Your task to perform on an android device: Search for seafood restaurants on Google Maps Image 0: 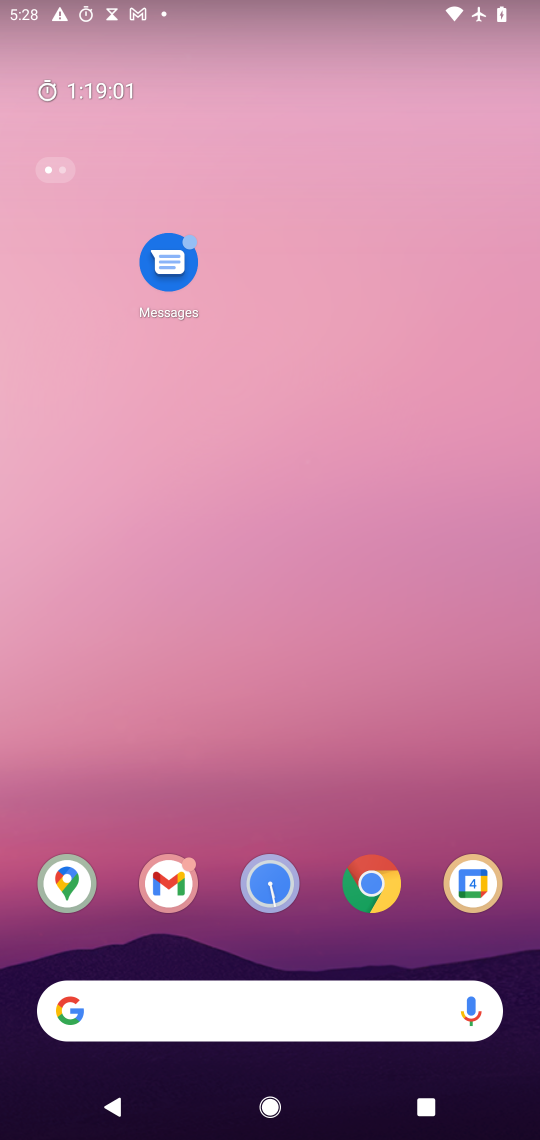
Step 0: drag from (318, 942) to (343, 44)
Your task to perform on an android device: Search for seafood restaurants on Google Maps Image 1: 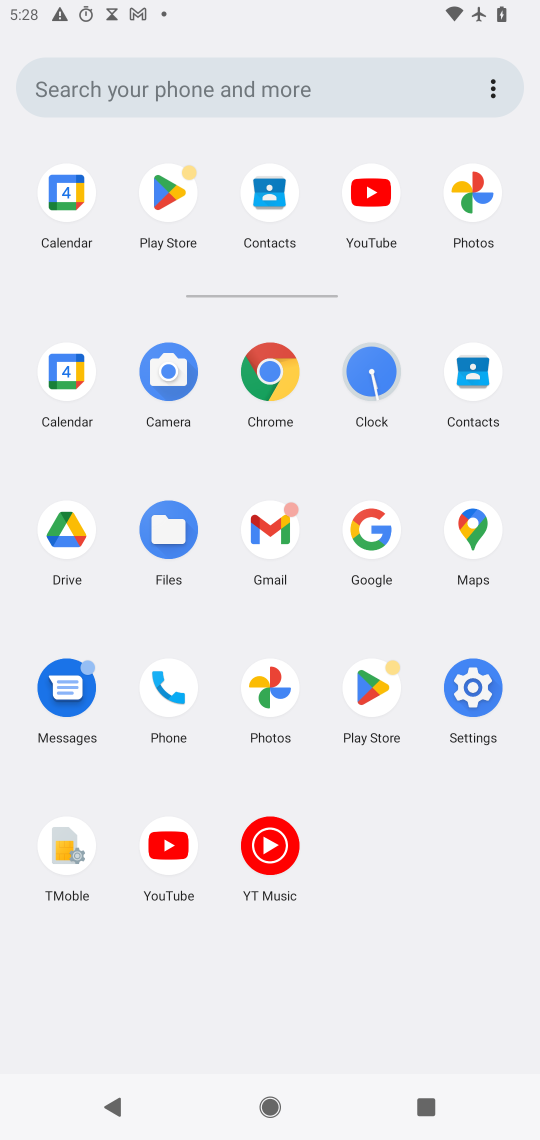
Step 1: click (478, 534)
Your task to perform on an android device: Search for seafood restaurants on Google Maps Image 2: 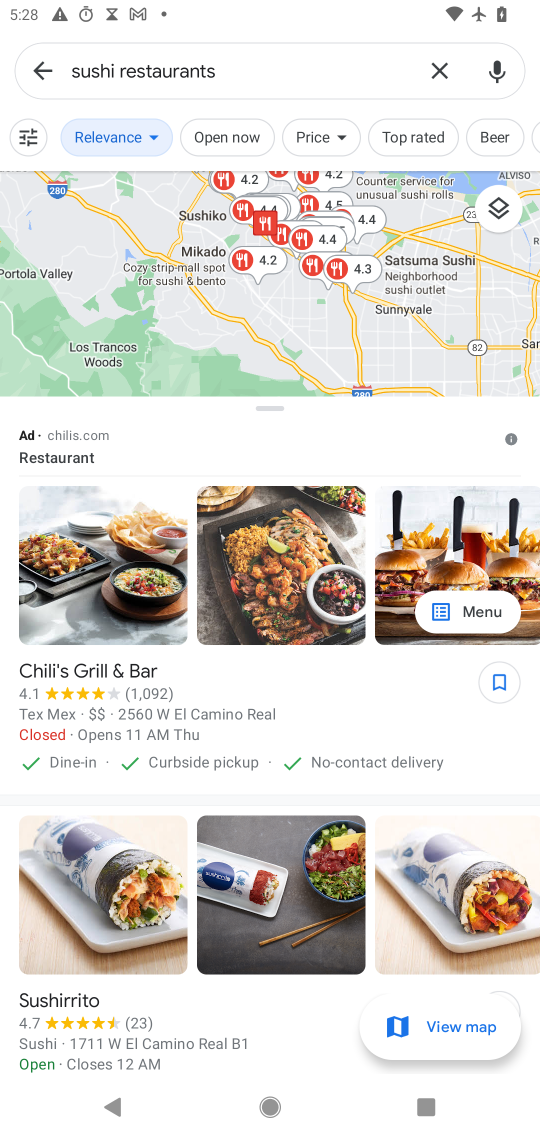
Step 2: click (434, 64)
Your task to perform on an android device: Search for seafood restaurants on Google Maps Image 3: 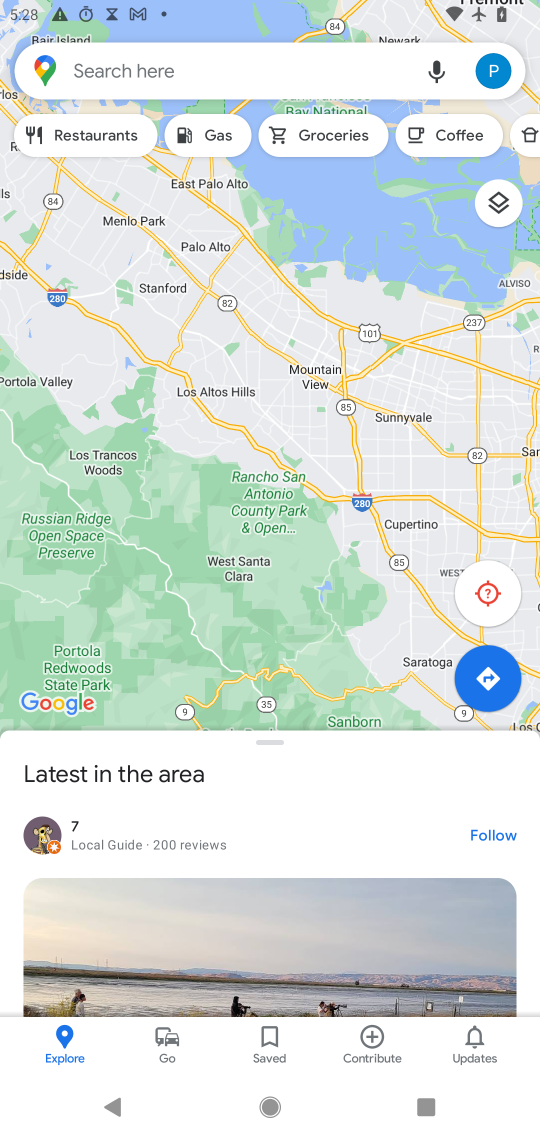
Step 3: click (303, 65)
Your task to perform on an android device: Search for seafood restaurants on Google Maps Image 4: 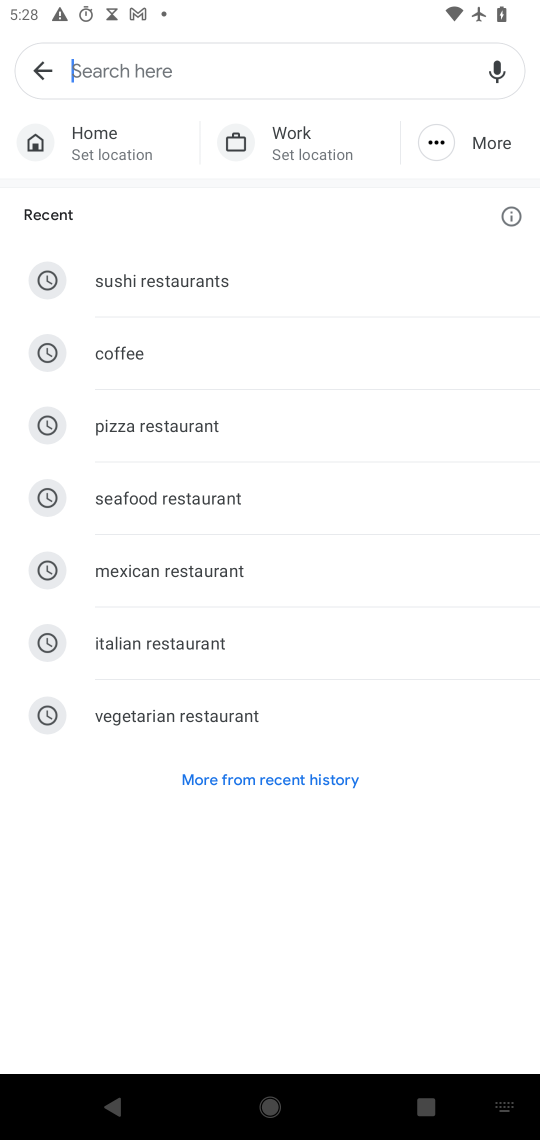
Step 4: type "seafood restaurants"
Your task to perform on an android device: Search for seafood restaurants on Google Maps Image 5: 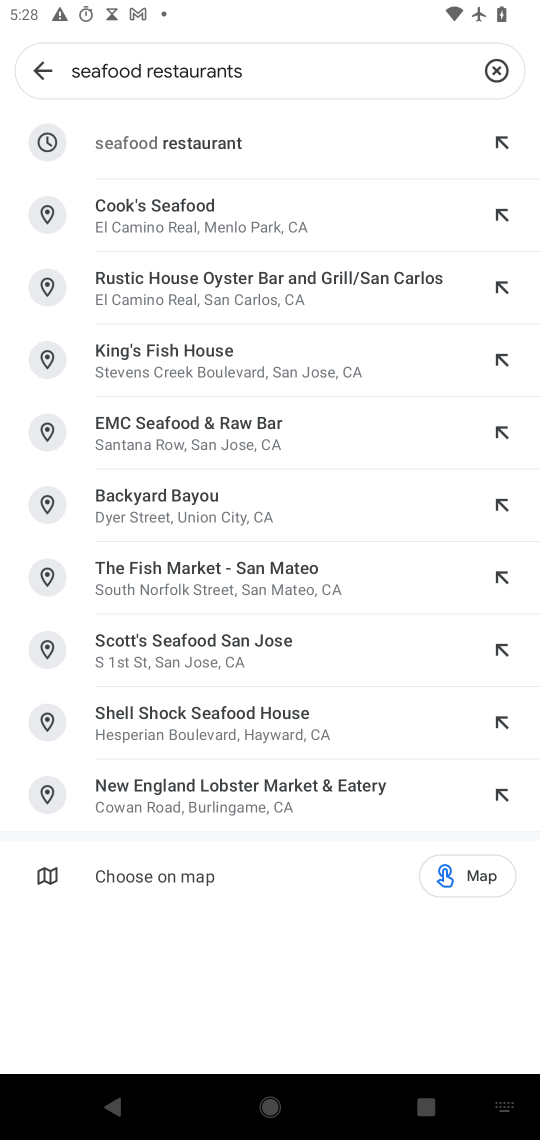
Step 5: click (211, 140)
Your task to perform on an android device: Search for seafood restaurants on Google Maps Image 6: 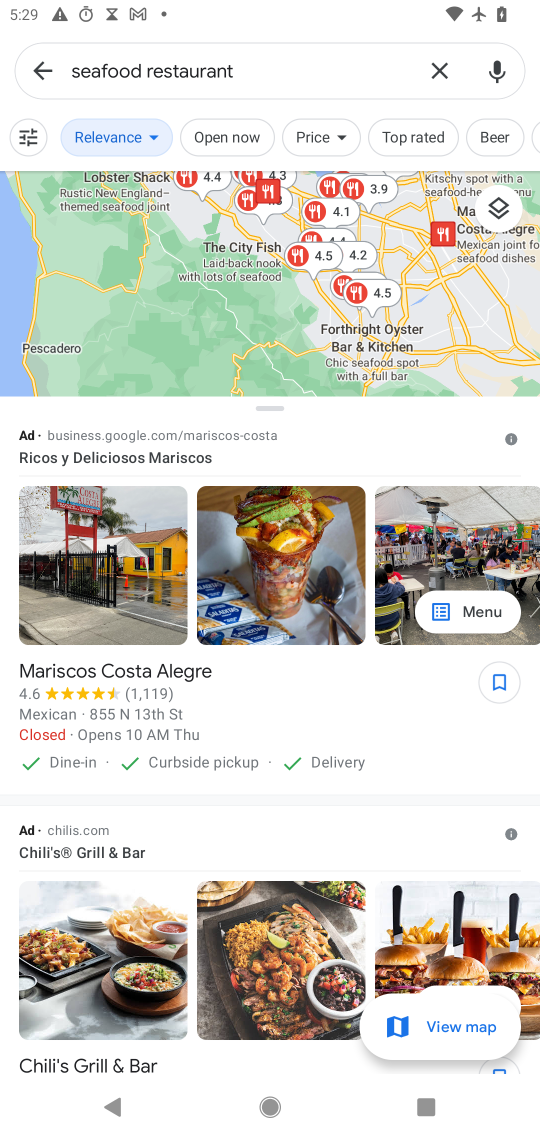
Step 6: task complete